Your task to perform on an android device: turn on translation in the chrome app Image 0: 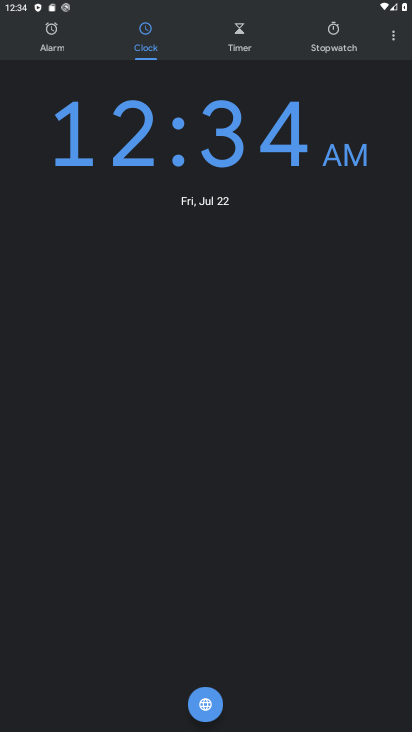
Step 0: press home button
Your task to perform on an android device: turn on translation in the chrome app Image 1: 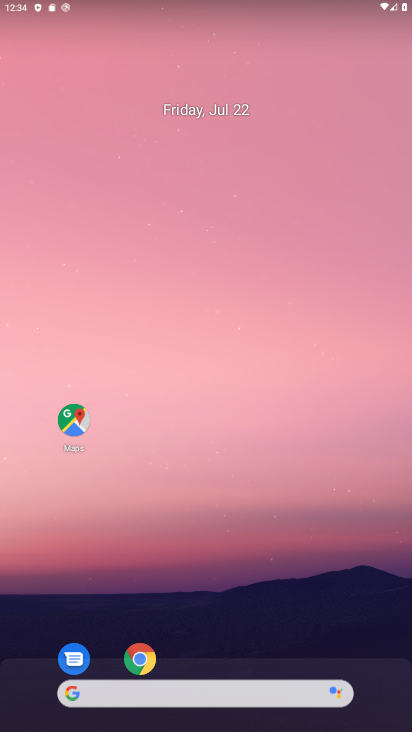
Step 1: click (142, 667)
Your task to perform on an android device: turn on translation in the chrome app Image 2: 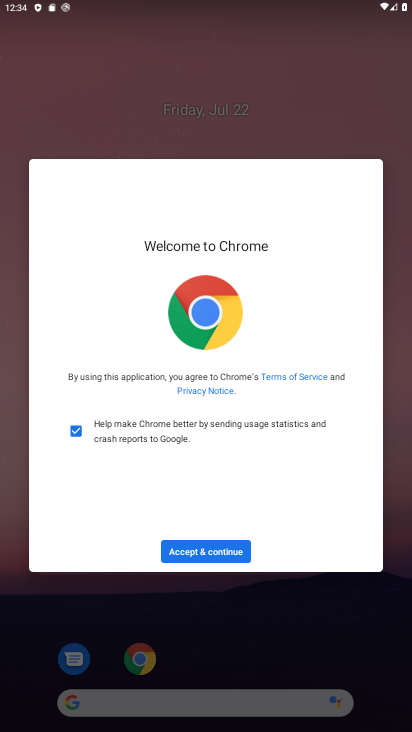
Step 2: click (215, 562)
Your task to perform on an android device: turn on translation in the chrome app Image 3: 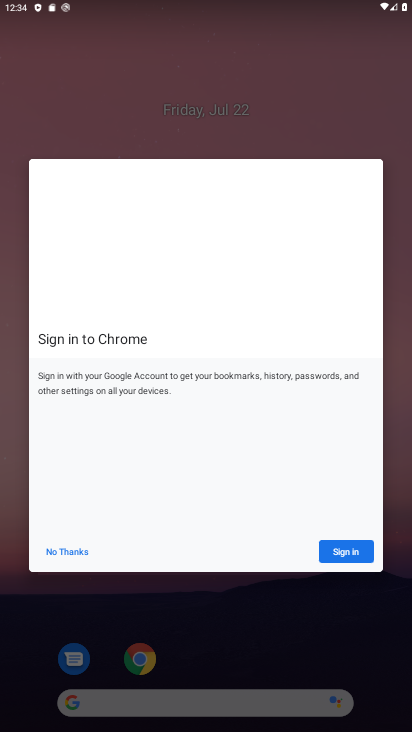
Step 3: click (51, 548)
Your task to perform on an android device: turn on translation in the chrome app Image 4: 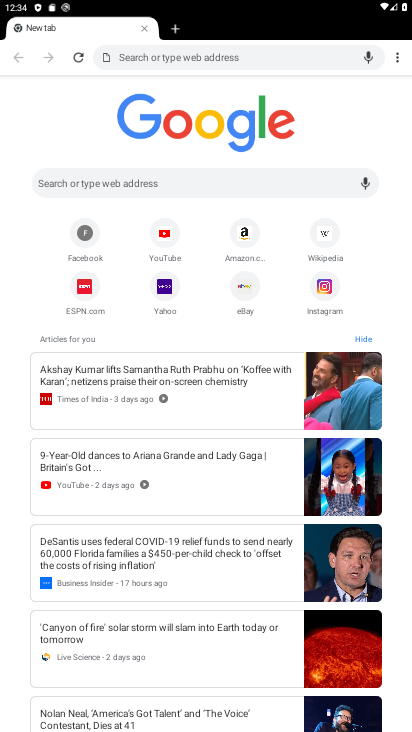
Step 4: click (402, 59)
Your task to perform on an android device: turn on translation in the chrome app Image 5: 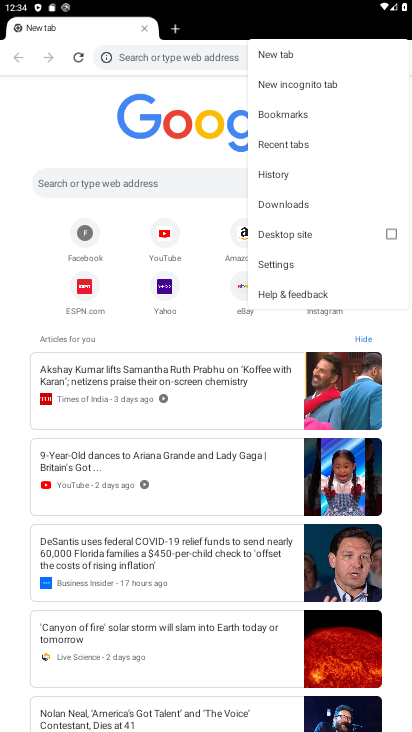
Step 5: click (312, 271)
Your task to perform on an android device: turn on translation in the chrome app Image 6: 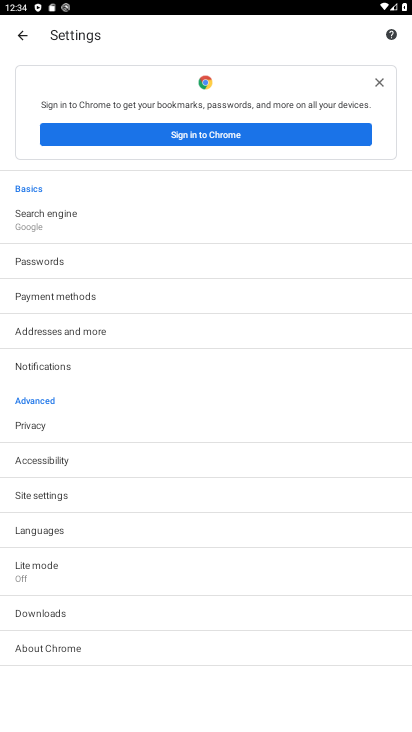
Step 6: click (98, 532)
Your task to perform on an android device: turn on translation in the chrome app Image 7: 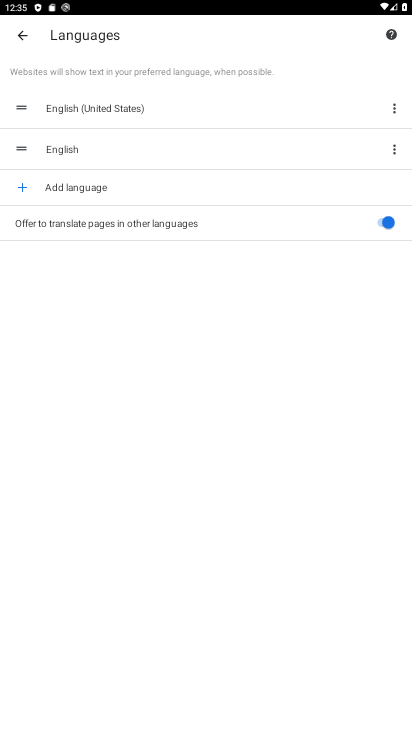
Step 7: task complete